Your task to perform on an android device: turn off priority inbox in the gmail app Image 0: 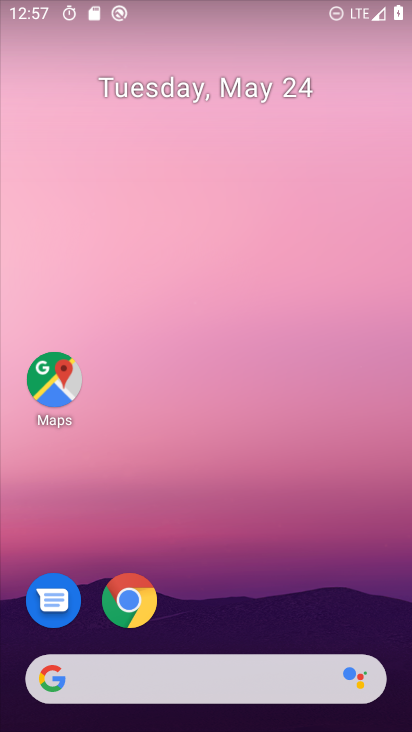
Step 0: drag from (254, 611) to (205, 203)
Your task to perform on an android device: turn off priority inbox in the gmail app Image 1: 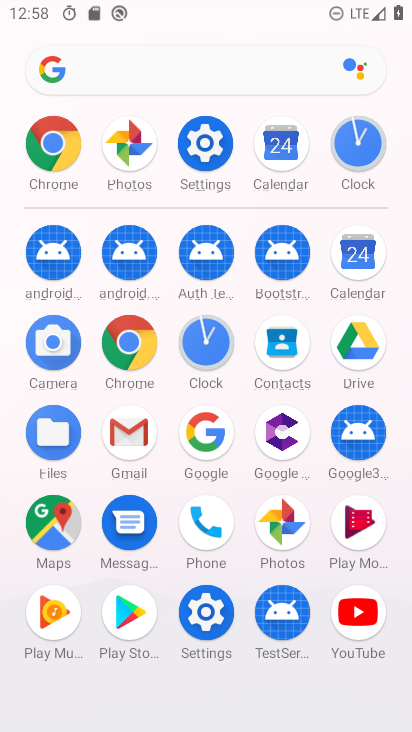
Step 1: click (136, 429)
Your task to perform on an android device: turn off priority inbox in the gmail app Image 2: 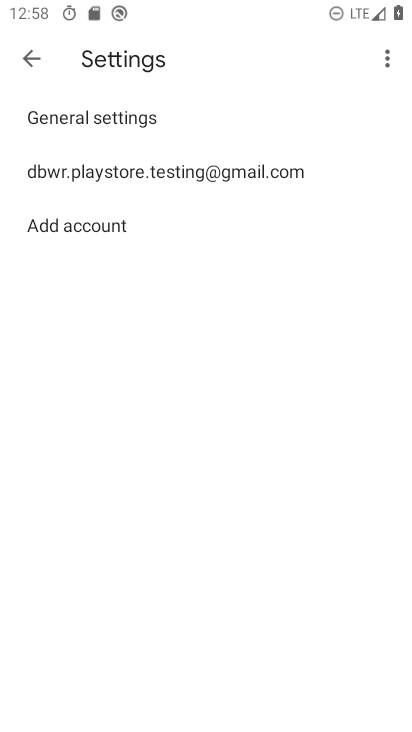
Step 2: click (228, 173)
Your task to perform on an android device: turn off priority inbox in the gmail app Image 3: 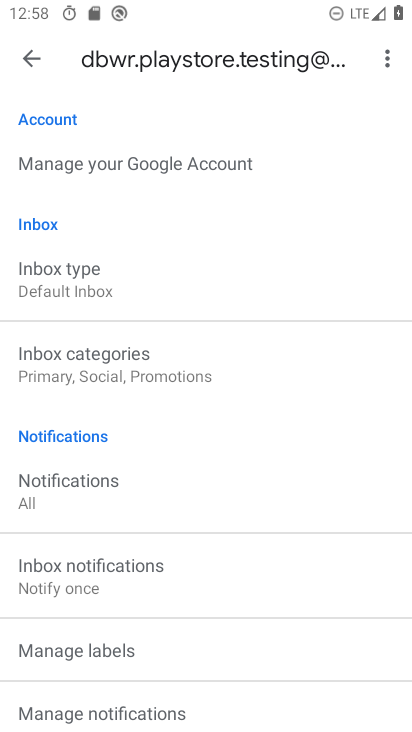
Step 3: click (95, 289)
Your task to perform on an android device: turn off priority inbox in the gmail app Image 4: 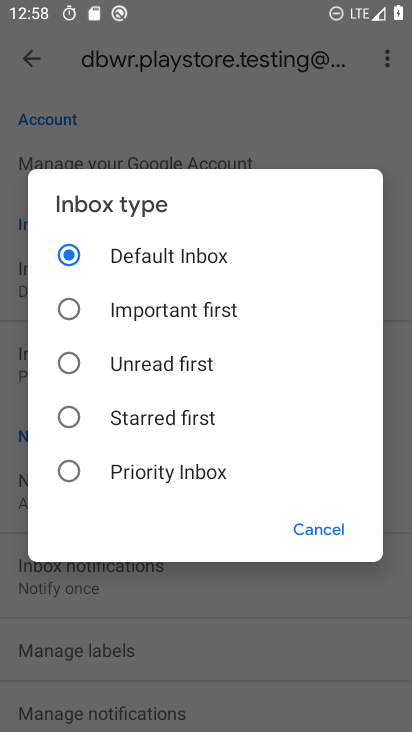
Step 4: task complete